Your task to perform on an android device: Open Google Image 0: 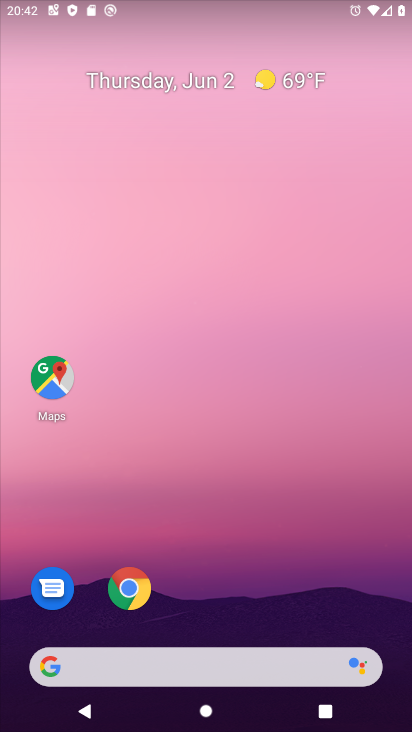
Step 0: drag from (221, 727) to (221, 56)
Your task to perform on an android device: Open Google Image 1: 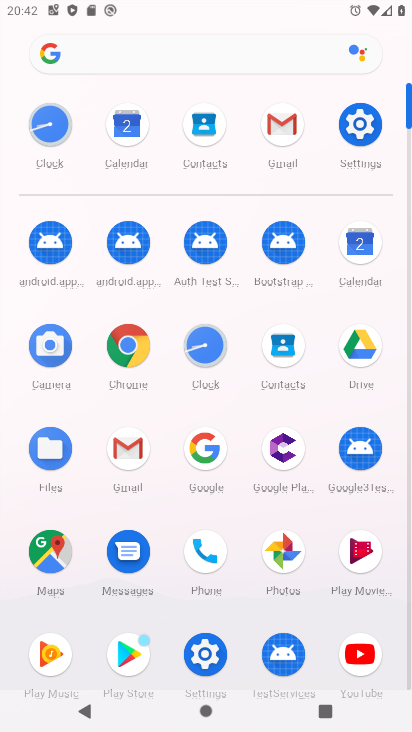
Step 1: click (202, 444)
Your task to perform on an android device: Open Google Image 2: 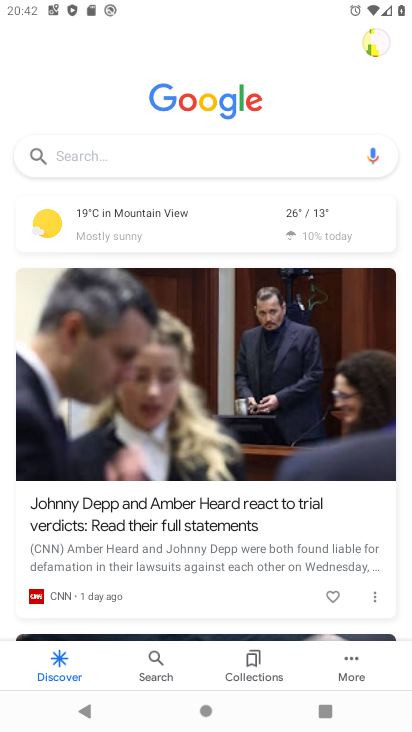
Step 2: task complete